Your task to perform on an android device: check the backup settings in the google photos Image 0: 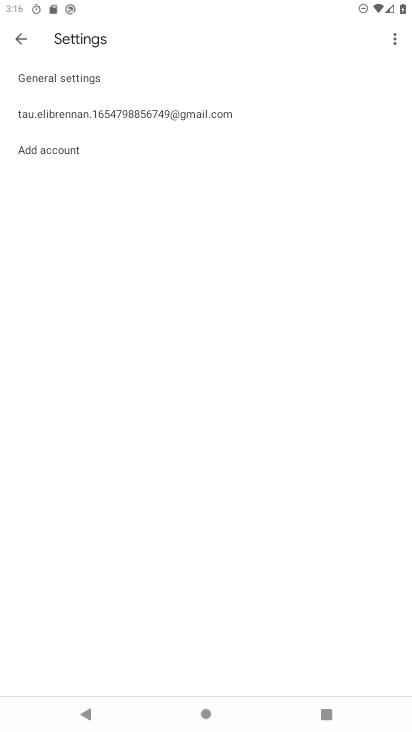
Step 0: press home button
Your task to perform on an android device: check the backup settings in the google photos Image 1: 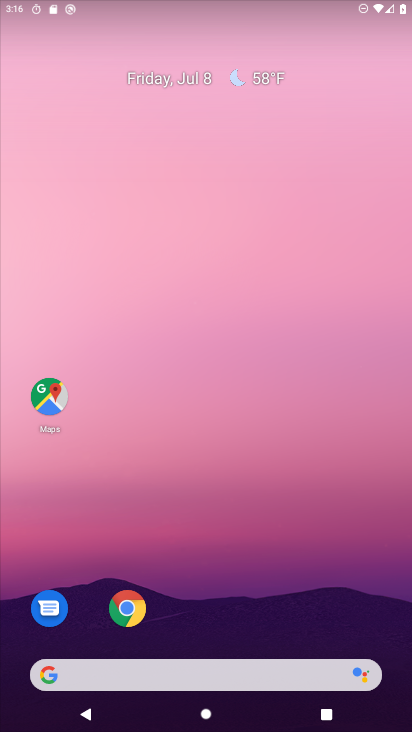
Step 1: drag from (229, 558) to (227, 177)
Your task to perform on an android device: check the backup settings in the google photos Image 2: 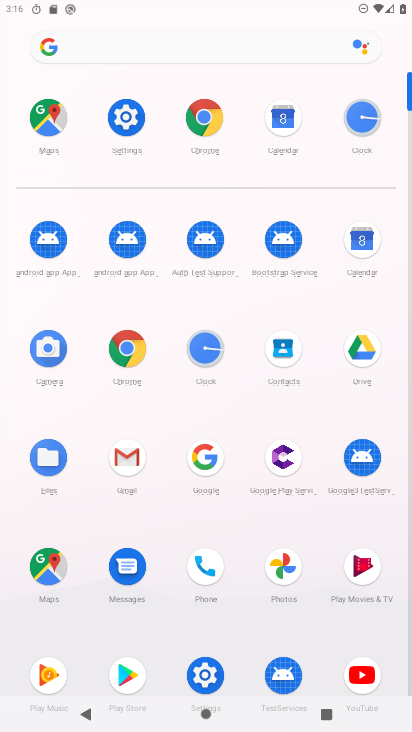
Step 2: click (287, 563)
Your task to perform on an android device: check the backup settings in the google photos Image 3: 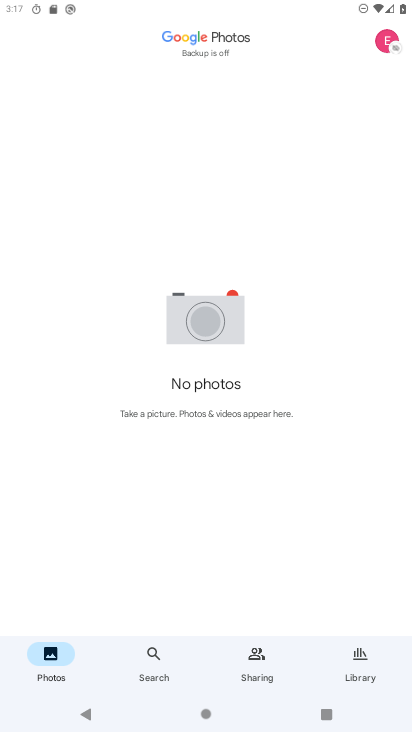
Step 3: click (46, 650)
Your task to perform on an android device: check the backup settings in the google photos Image 4: 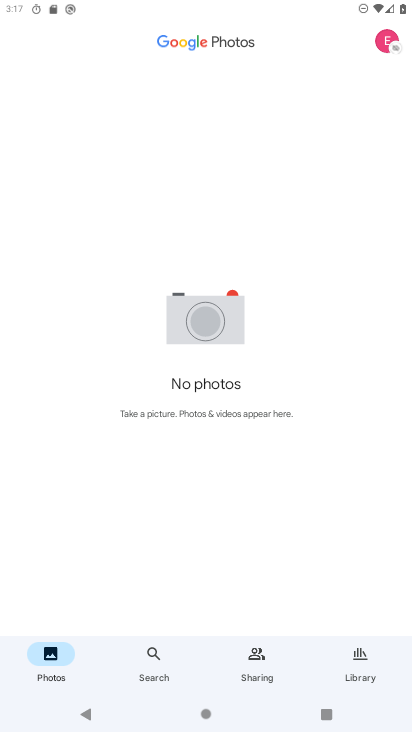
Step 4: task complete